Your task to perform on an android device: see creations saved in the google photos Image 0: 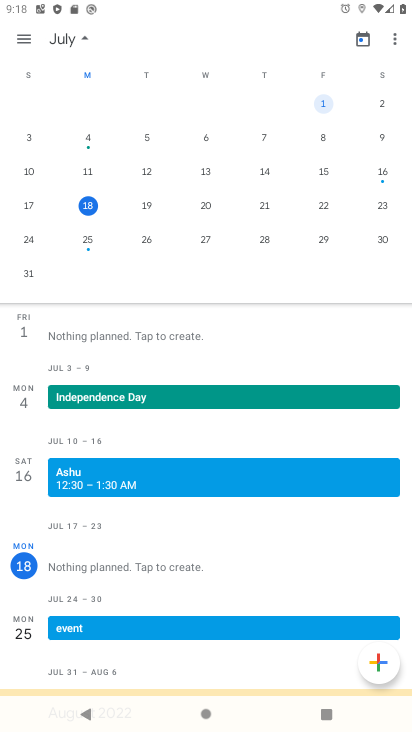
Step 0: press home button
Your task to perform on an android device: see creations saved in the google photos Image 1: 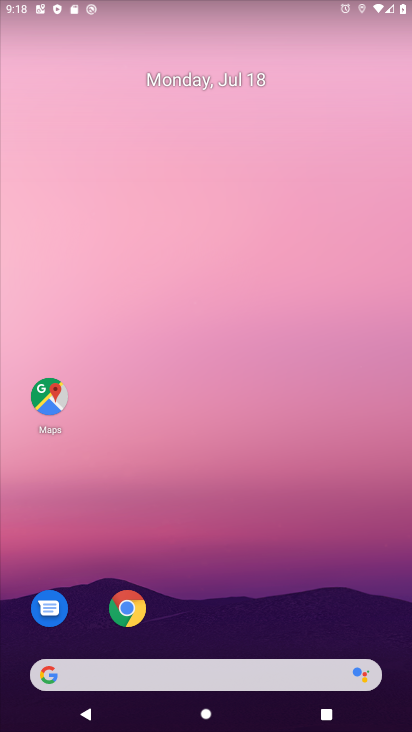
Step 1: drag from (11, 710) to (197, 237)
Your task to perform on an android device: see creations saved in the google photos Image 2: 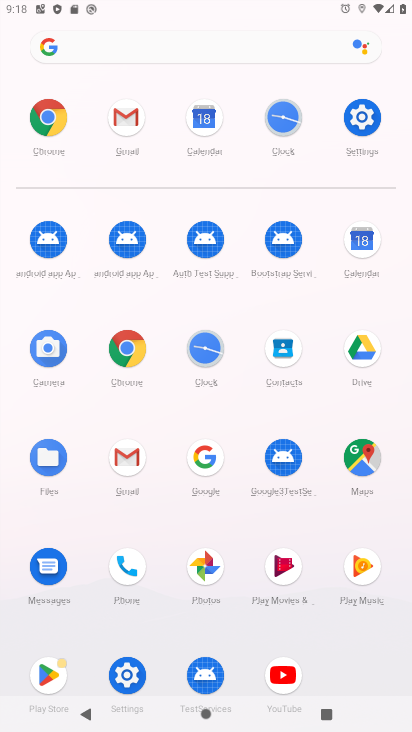
Step 2: click (207, 564)
Your task to perform on an android device: see creations saved in the google photos Image 3: 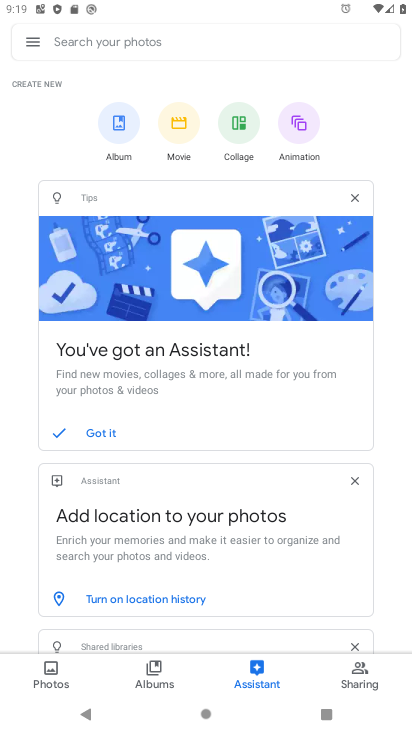
Step 3: click (165, 671)
Your task to perform on an android device: see creations saved in the google photos Image 4: 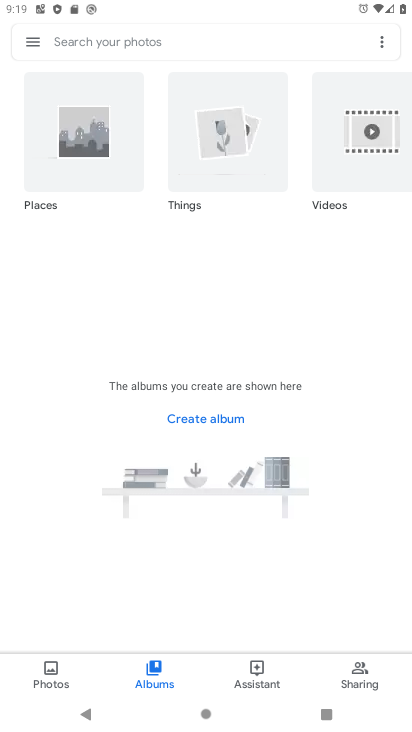
Step 4: click (59, 683)
Your task to perform on an android device: see creations saved in the google photos Image 5: 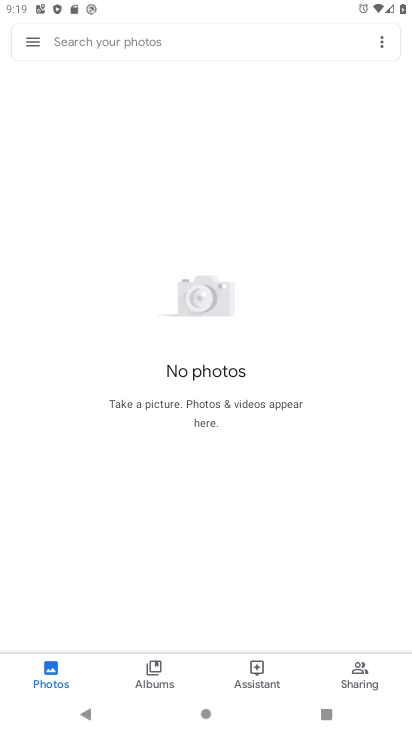
Step 5: task complete